Your task to perform on an android device: set the stopwatch Image 0: 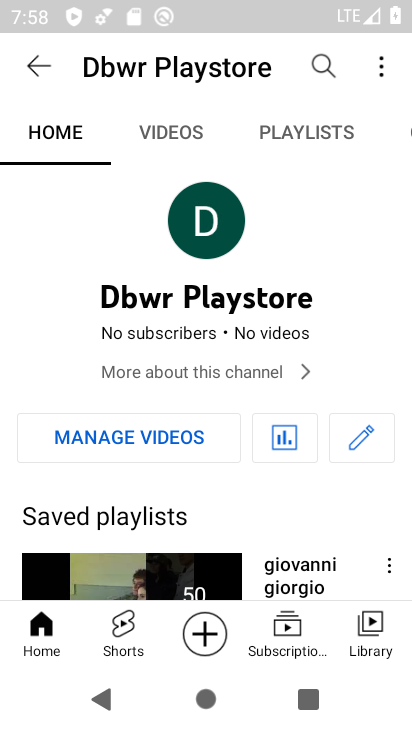
Step 0: press home button
Your task to perform on an android device: set the stopwatch Image 1: 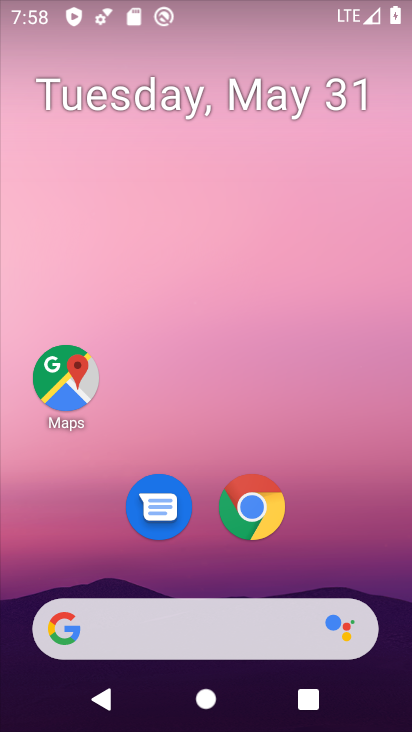
Step 1: drag from (386, 496) to (344, 4)
Your task to perform on an android device: set the stopwatch Image 2: 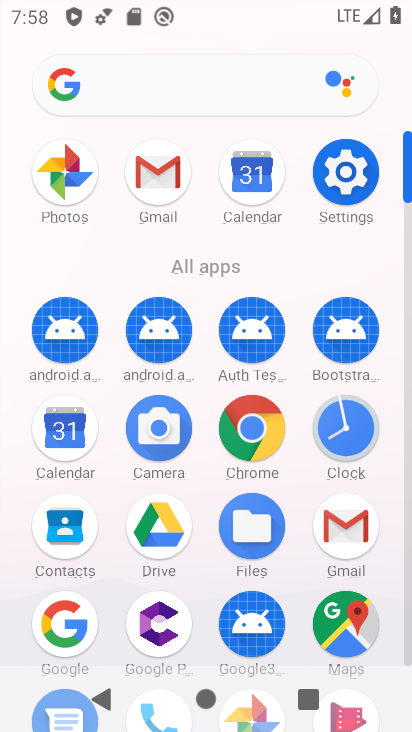
Step 2: click (342, 434)
Your task to perform on an android device: set the stopwatch Image 3: 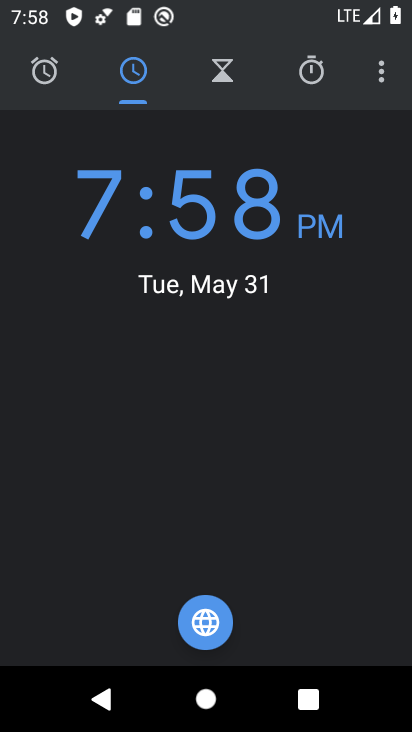
Step 3: click (312, 81)
Your task to perform on an android device: set the stopwatch Image 4: 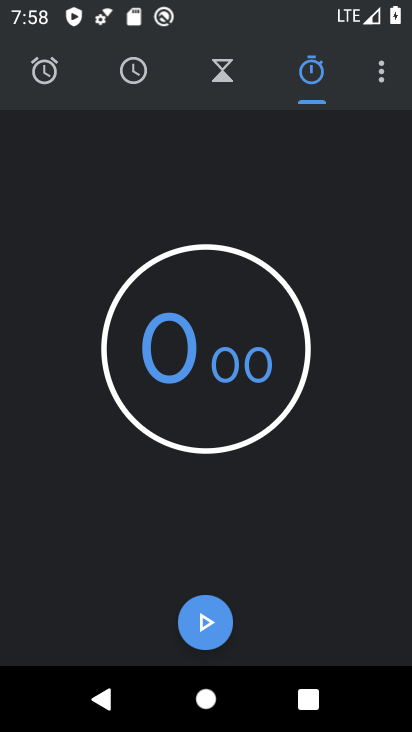
Step 4: click (213, 609)
Your task to perform on an android device: set the stopwatch Image 5: 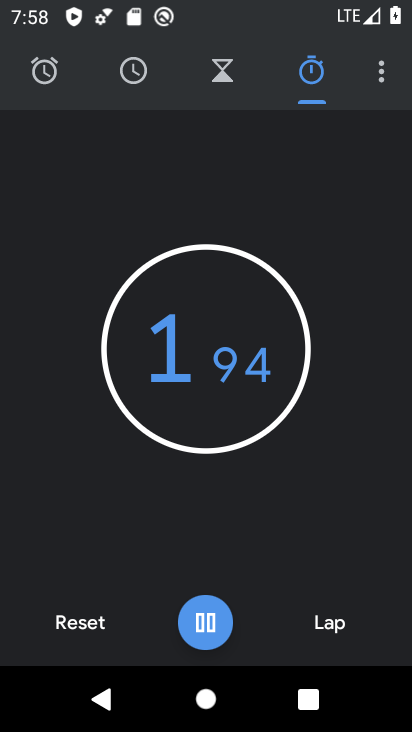
Step 5: click (207, 620)
Your task to perform on an android device: set the stopwatch Image 6: 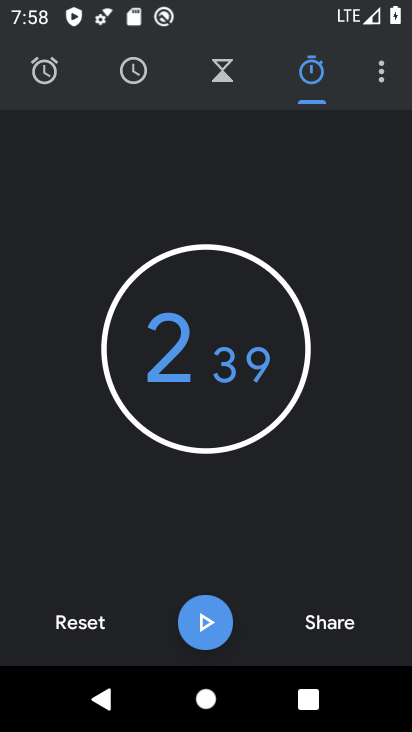
Step 6: task complete